Your task to perform on an android device: turn off priority inbox in the gmail app Image 0: 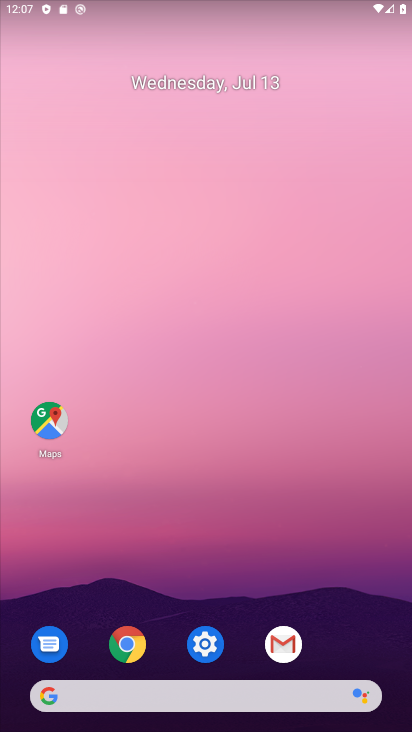
Step 0: press home button
Your task to perform on an android device: turn off priority inbox in the gmail app Image 1: 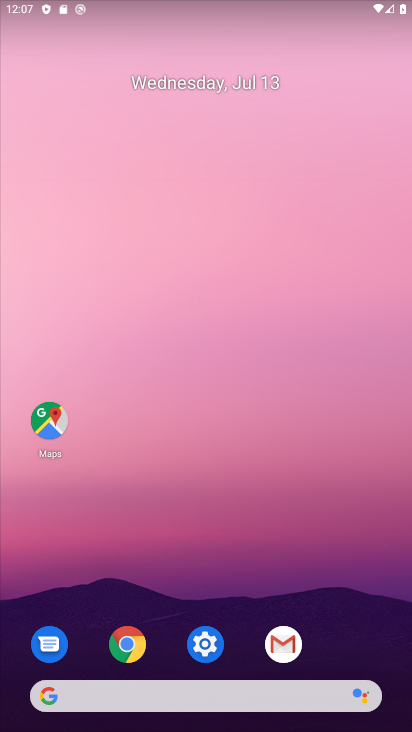
Step 1: click (282, 652)
Your task to perform on an android device: turn off priority inbox in the gmail app Image 2: 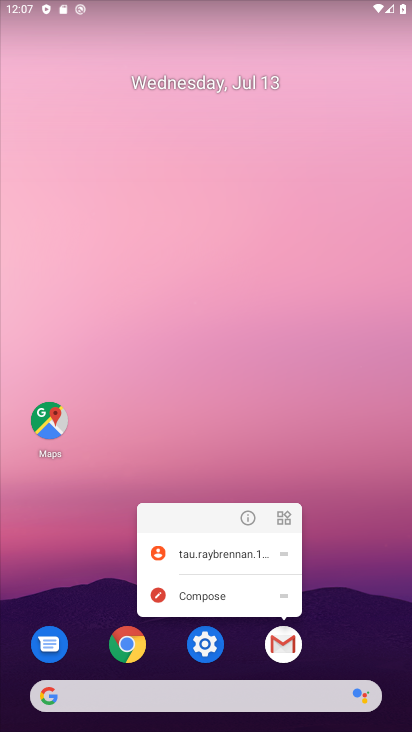
Step 2: click (285, 632)
Your task to perform on an android device: turn off priority inbox in the gmail app Image 3: 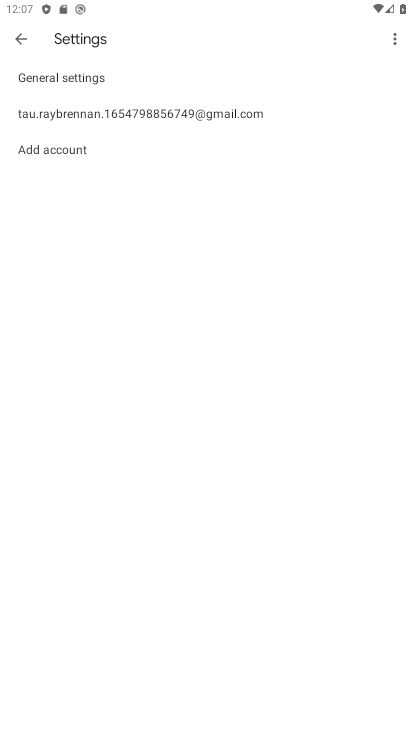
Step 3: click (104, 110)
Your task to perform on an android device: turn off priority inbox in the gmail app Image 4: 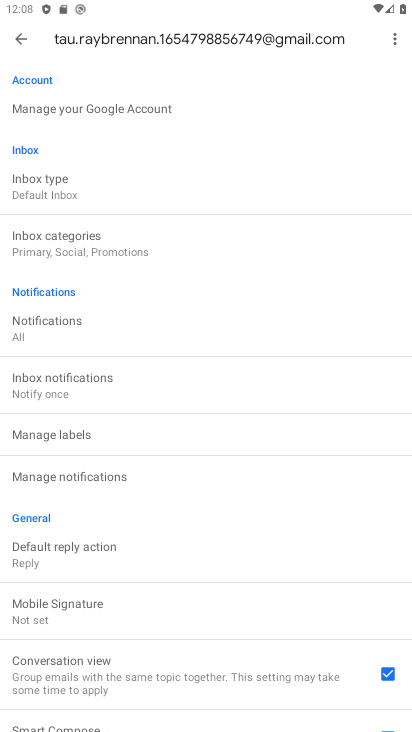
Step 4: click (64, 199)
Your task to perform on an android device: turn off priority inbox in the gmail app Image 5: 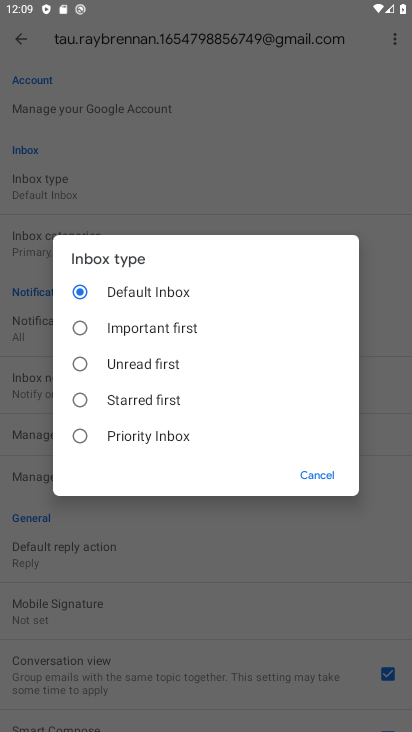
Step 5: task complete